Your task to perform on an android device: Do I have any events this weekend? Image 0: 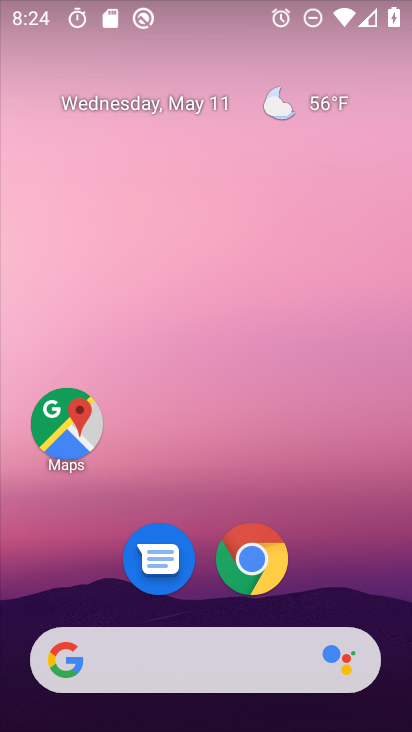
Step 0: drag from (295, 601) to (273, 0)
Your task to perform on an android device: Do I have any events this weekend? Image 1: 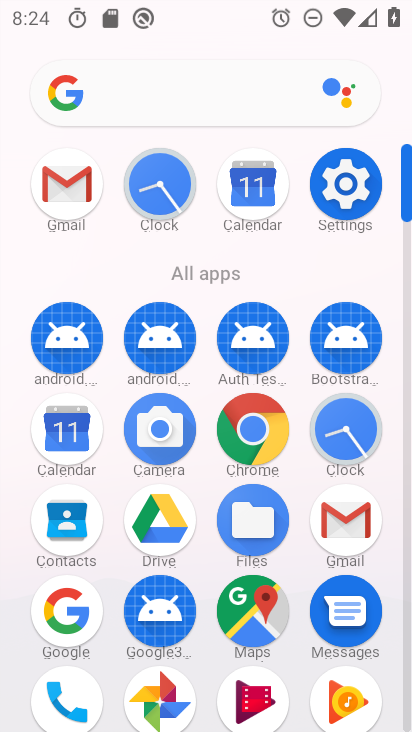
Step 1: click (73, 419)
Your task to perform on an android device: Do I have any events this weekend? Image 2: 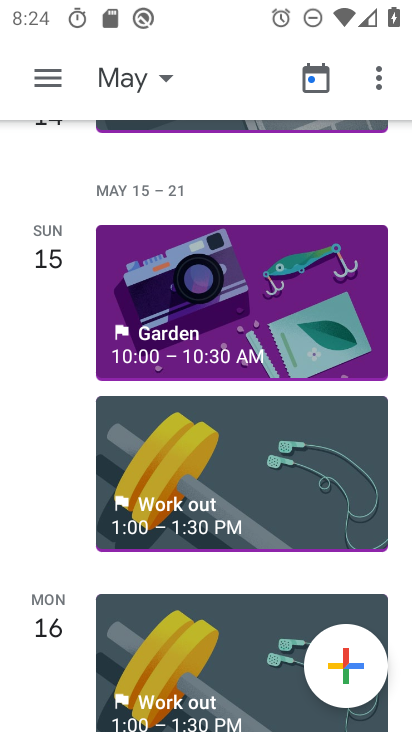
Step 2: click (39, 85)
Your task to perform on an android device: Do I have any events this weekend? Image 3: 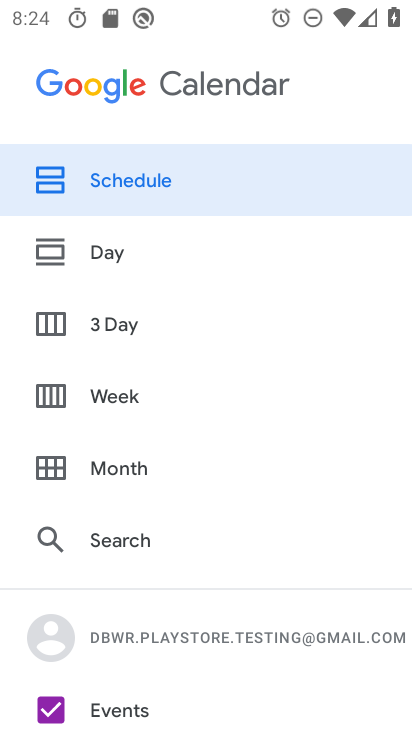
Step 3: click (119, 388)
Your task to perform on an android device: Do I have any events this weekend? Image 4: 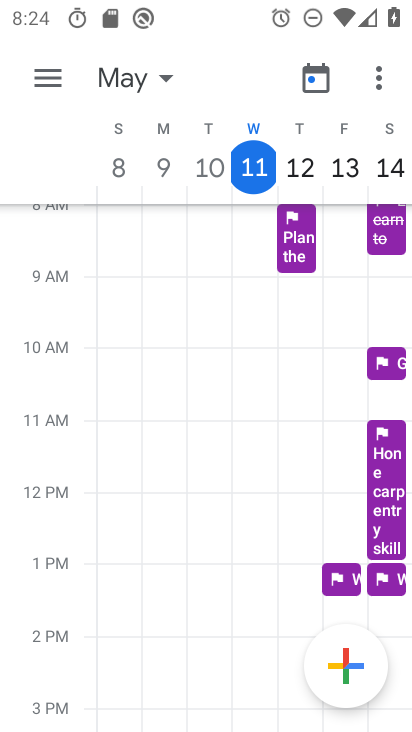
Step 4: task complete